Your task to perform on an android device: Go to eBay Image 0: 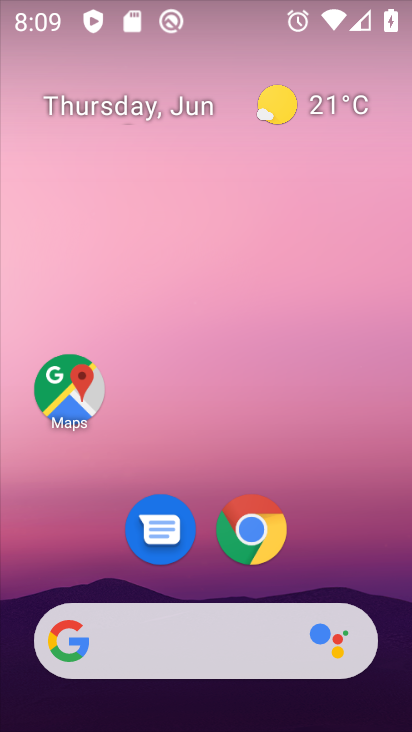
Step 0: click (268, 519)
Your task to perform on an android device: Go to eBay Image 1: 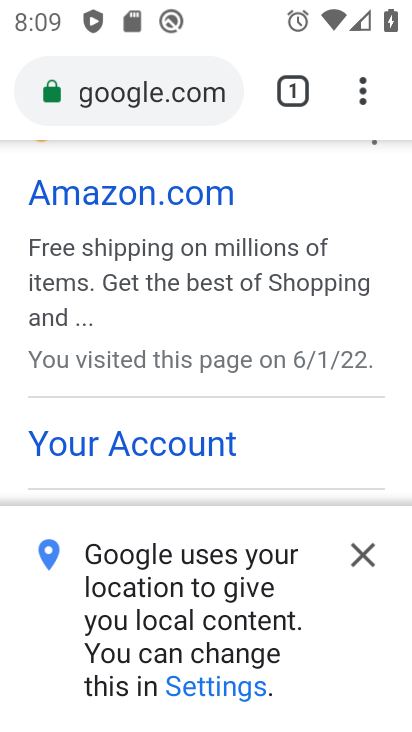
Step 1: click (226, 91)
Your task to perform on an android device: Go to eBay Image 2: 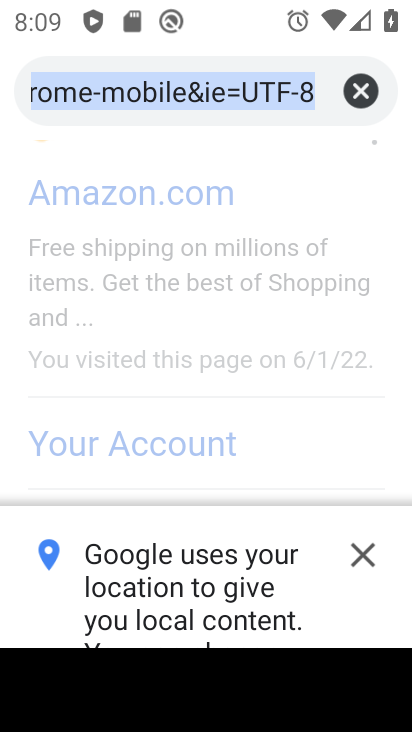
Step 2: click (352, 89)
Your task to perform on an android device: Go to eBay Image 3: 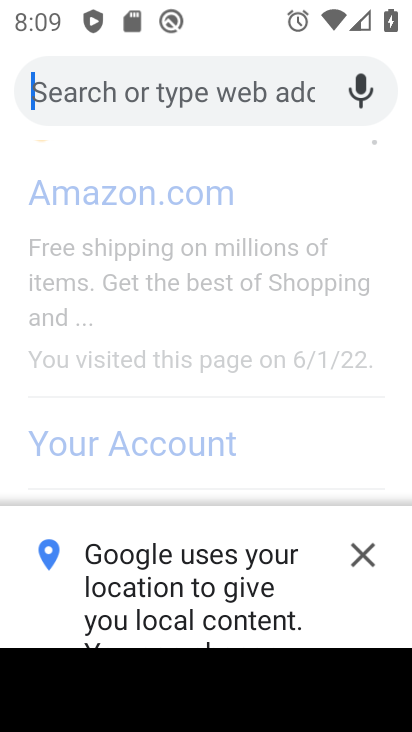
Step 3: type "eBay"
Your task to perform on an android device: Go to eBay Image 4: 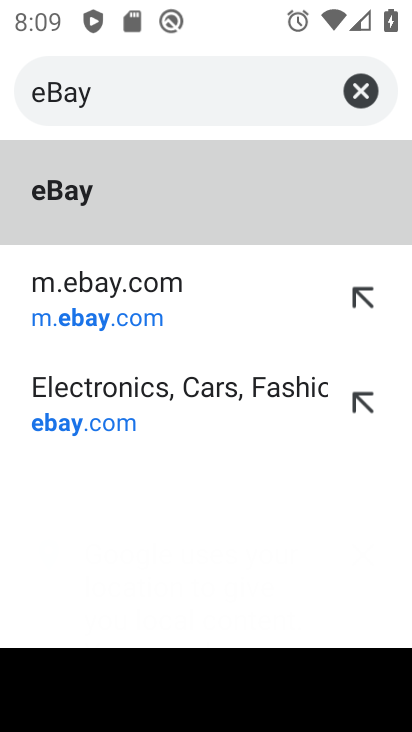
Step 4: click (76, 182)
Your task to perform on an android device: Go to eBay Image 5: 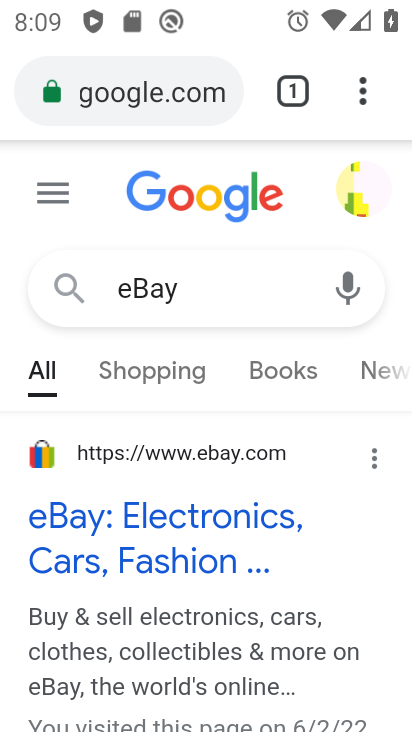
Step 5: task complete